Your task to perform on an android device: turn on translation in the chrome app Image 0: 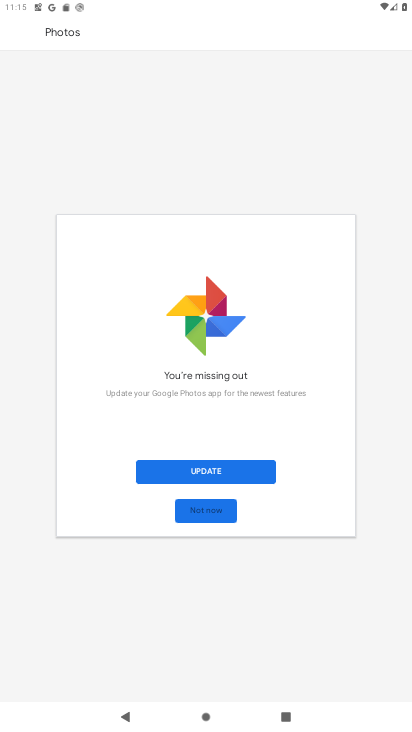
Step 0: press home button
Your task to perform on an android device: turn on translation in the chrome app Image 1: 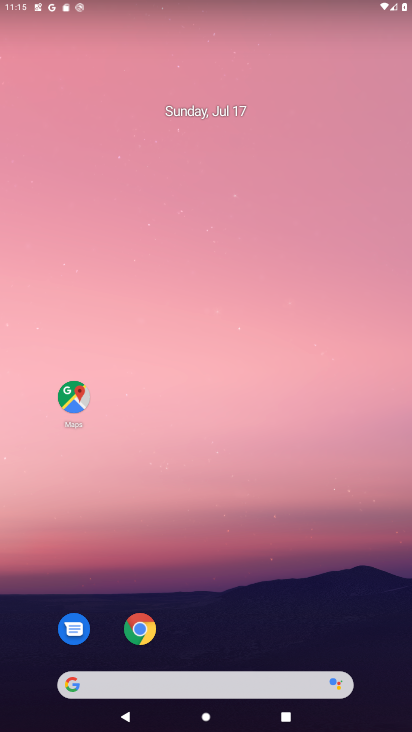
Step 1: click (140, 629)
Your task to perform on an android device: turn on translation in the chrome app Image 2: 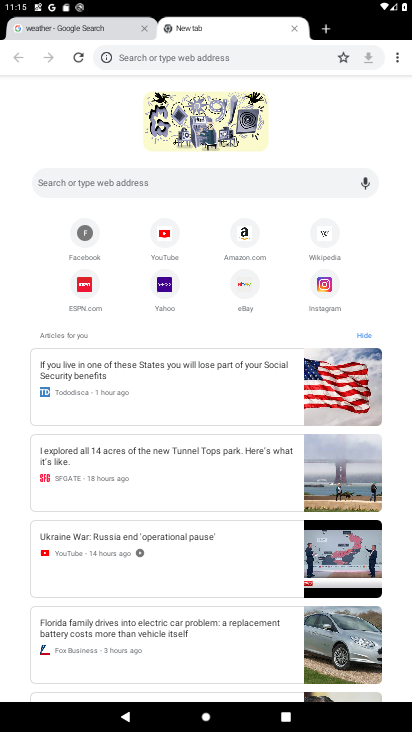
Step 2: click (397, 55)
Your task to perform on an android device: turn on translation in the chrome app Image 3: 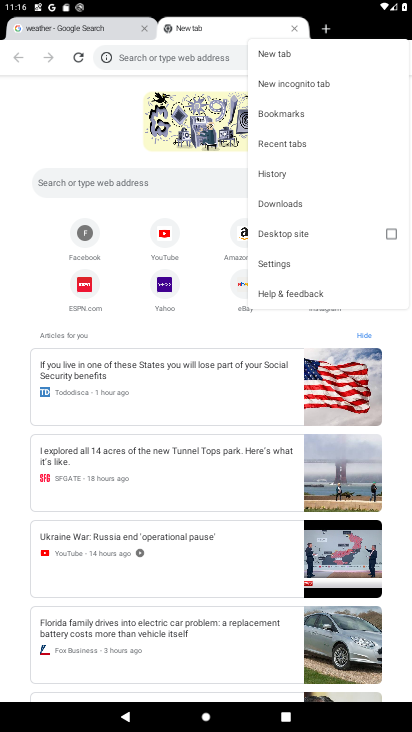
Step 3: click (278, 265)
Your task to perform on an android device: turn on translation in the chrome app Image 4: 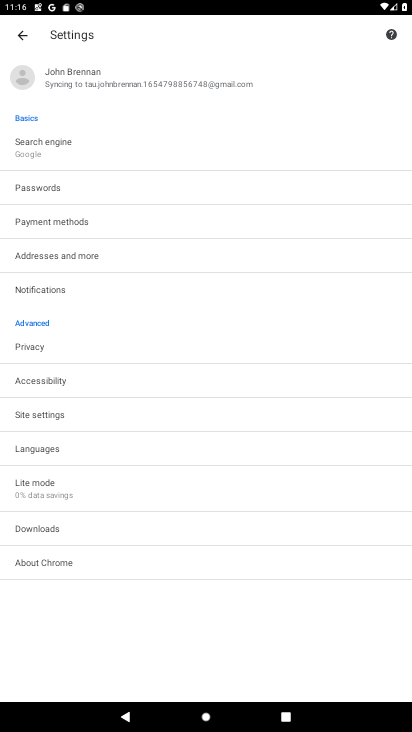
Step 4: click (38, 450)
Your task to perform on an android device: turn on translation in the chrome app Image 5: 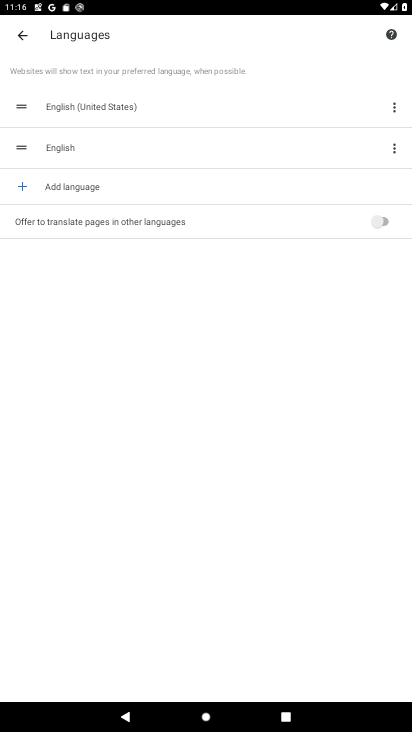
Step 5: click (376, 226)
Your task to perform on an android device: turn on translation in the chrome app Image 6: 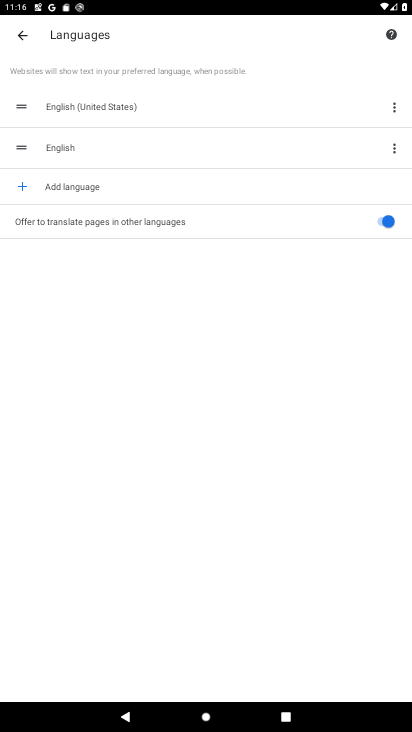
Step 6: task complete